Your task to perform on an android device: find photos in the google photos app Image 0: 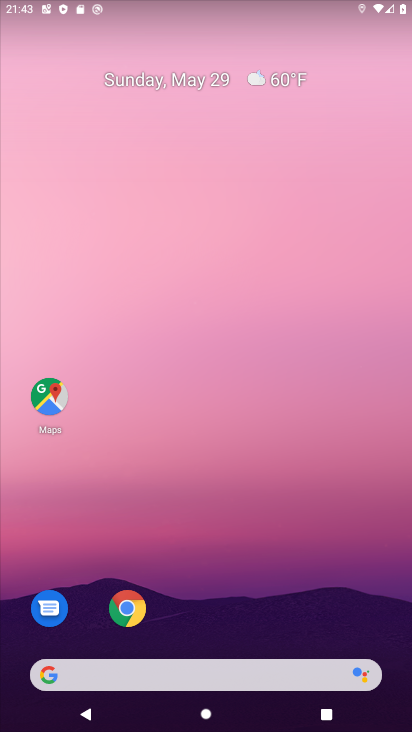
Step 0: drag from (380, 624) to (380, 280)
Your task to perform on an android device: find photos in the google photos app Image 1: 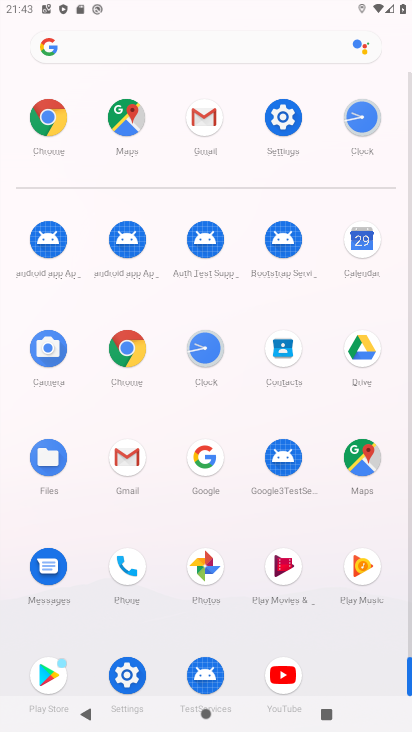
Step 1: click (215, 565)
Your task to perform on an android device: find photos in the google photos app Image 2: 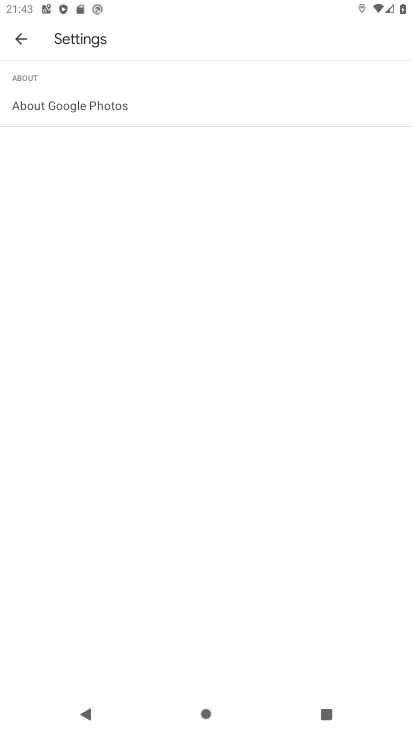
Step 2: click (20, 43)
Your task to perform on an android device: find photos in the google photos app Image 3: 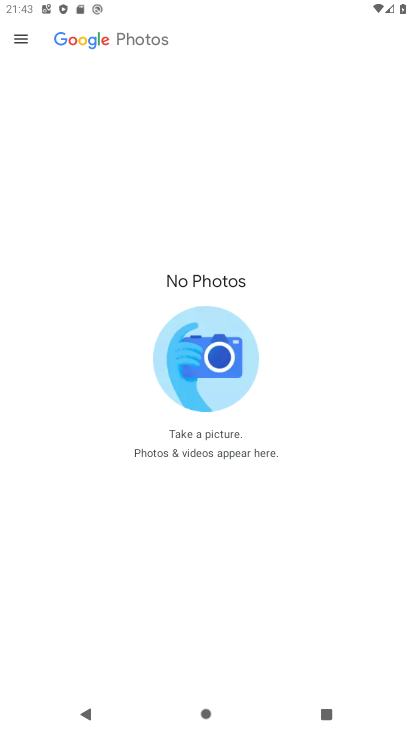
Step 3: task complete